Your task to perform on an android device: change text size in settings app Image 0: 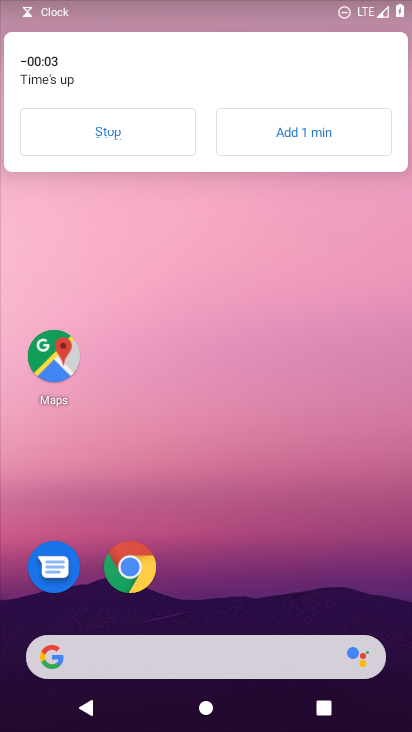
Step 0: click (112, 133)
Your task to perform on an android device: change text size in settings app Image 1: 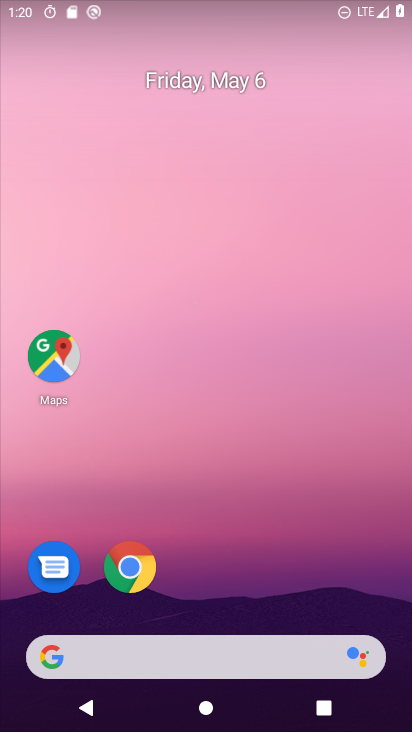
Step 1: drag from (334, 581) to (344, 19)
Your task to perform on an android device: change text size in settings app Image 2: 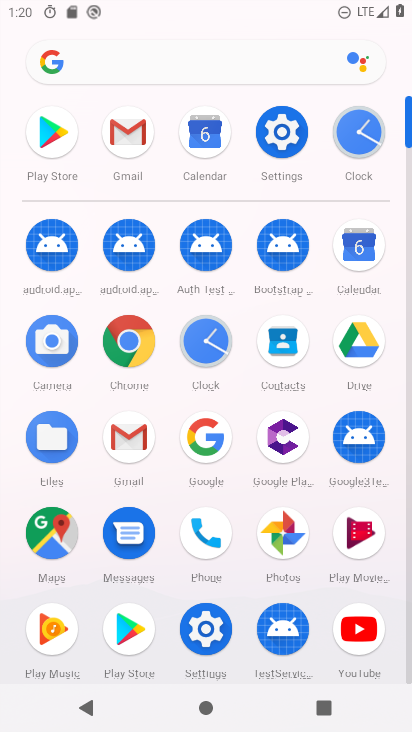
Step 2: click (281, 132)
Your task to perform on an android device: change text size in settings app Image 3: 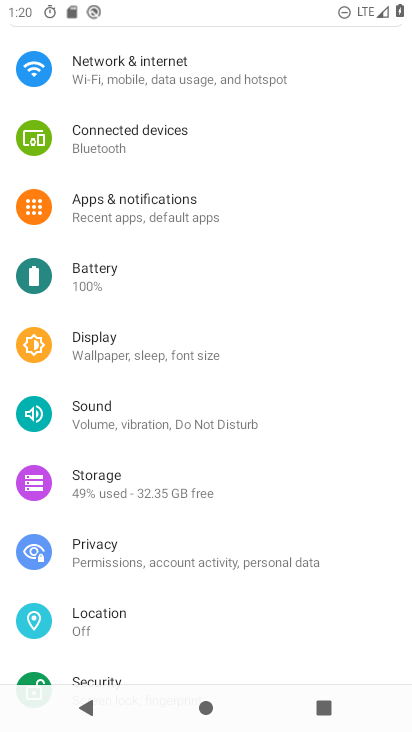
Step 3: click (108, 358)
Your task to perform on an android device: change text size in settings app Image 4: 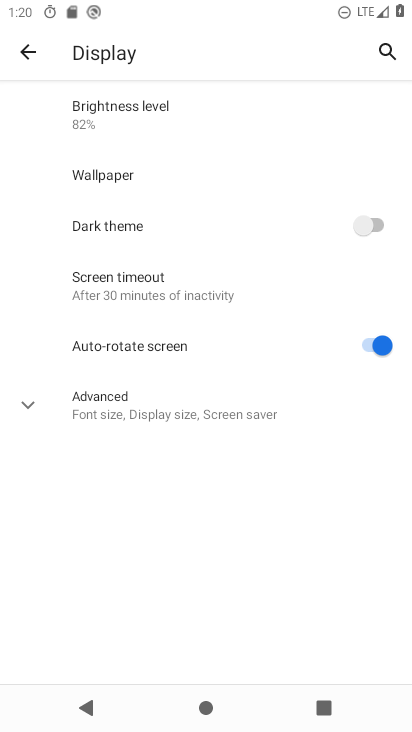
Step 4: click (26, 414)
Your task to perform on an android device: change text size in settings app Image 5: 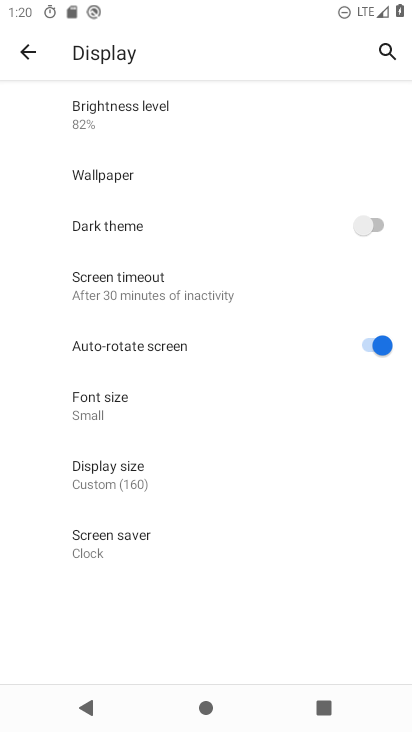
Step 5: click (97, 413)
Your task to perform on an android device: change text size in settings app Image 6: 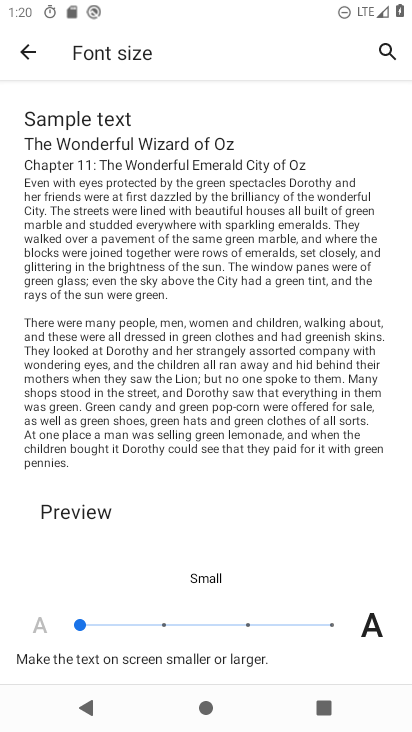
Step 6: click (169, 627)
Your task to perform on an android device: change text size in settings app Image 7: 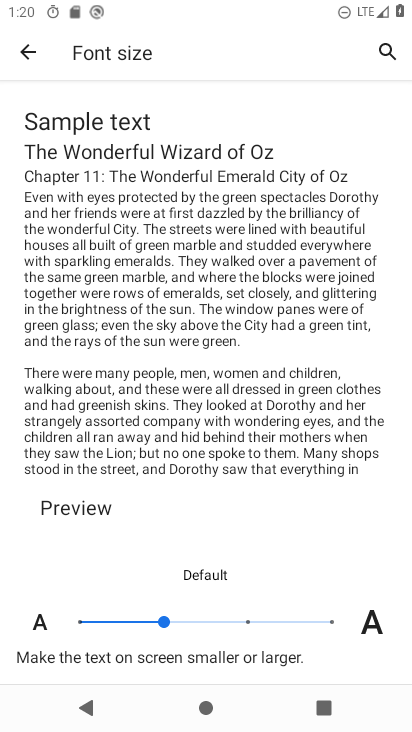
Step 7: task complete